Your task to perform on an android device: Go to privacy settings Image 0: 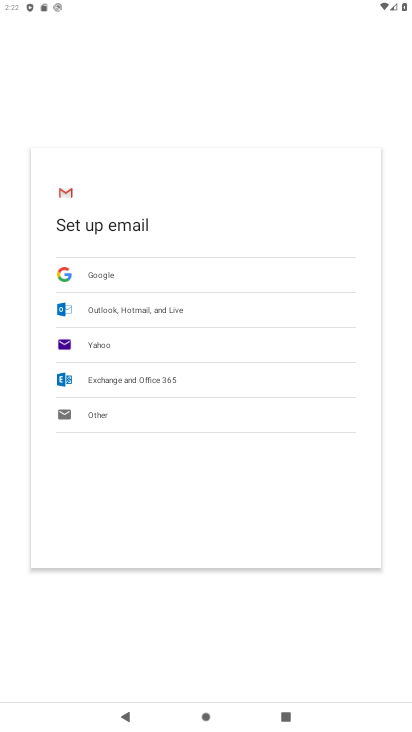
Step 0: press back button
Your task to perform on an android device: Go to privacy settings Image 1: 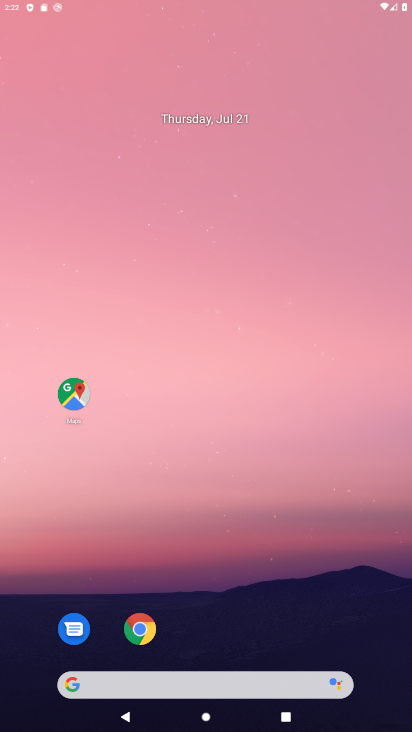
Step 1: drag from (216, 434) to (271, 35)
Your task to perform on an android device: Go to privacy settings Image 2: 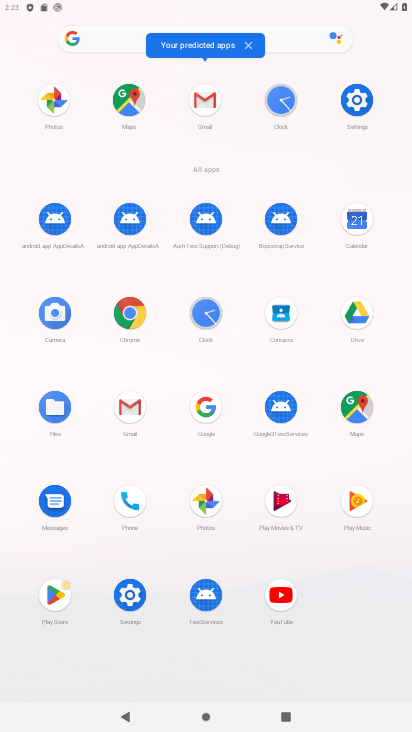
Step 2: click (353, 103)
Your task to perform on an android device: Go to privacy settings Image 3: 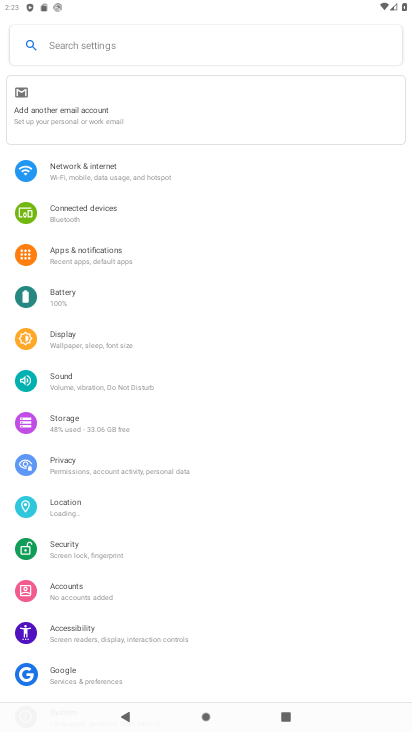
Step 3: click (71, 458)
Your task to perform on an android device: Go to privacy settings Image 4: 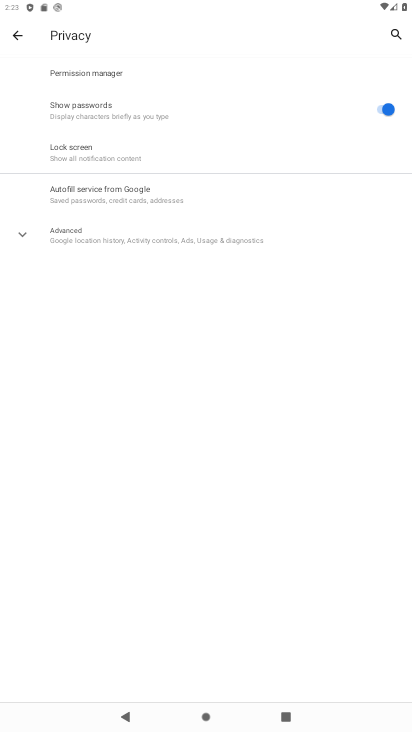
Step 4: task complete